Your task to perform on an android device: Search for vegetarian restaurants on Maps Image 0: 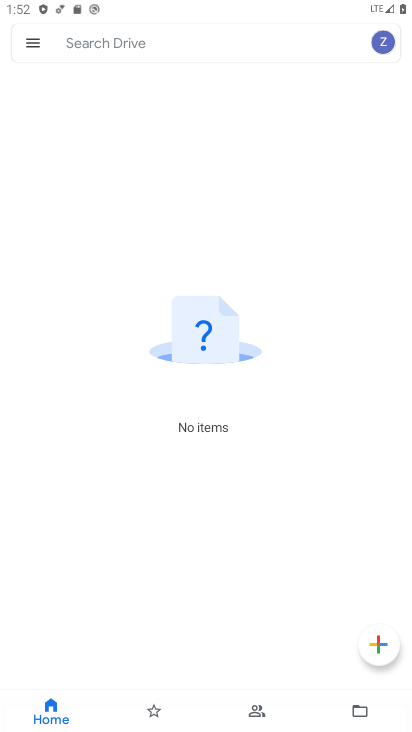
Step 0: press home button
Your task to perform on an android device: Search for vegetarian restaurants on Maps Image 1: 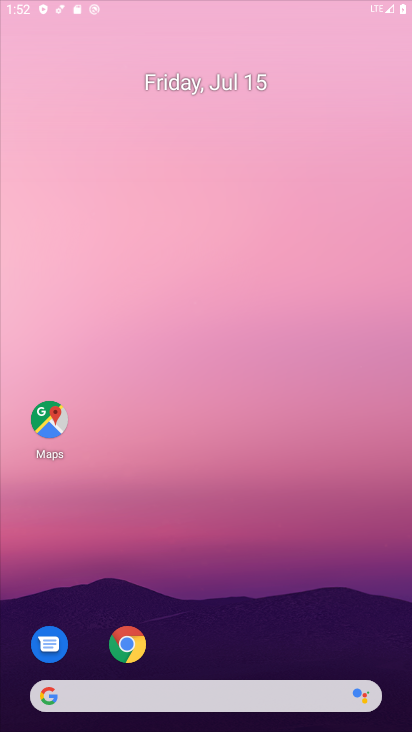
Step 1: drag from (376, 685) to (278, 53)
Your task to perform on an android device: Search for vegetarian restaurants on Maps Image 2: 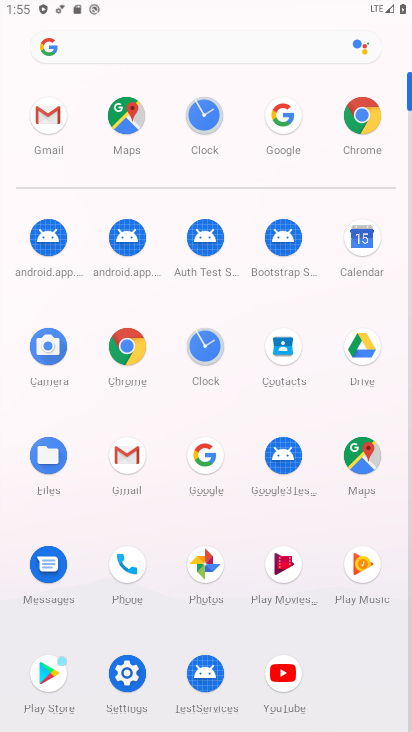
Step 2: click (357, 458)
Your task to perform on an android device: Search for vegetarian restaurants on Maps Image 3: 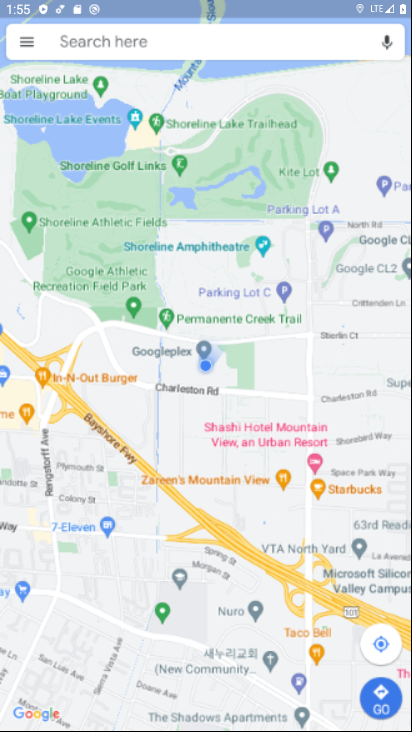
Step 3: click (151, 41)
Your task to perform on an android device: Search for vegetarian restaurants on Maps Image 4: 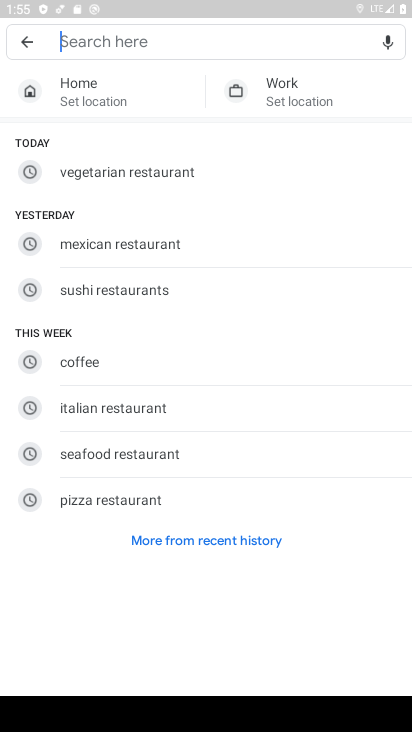
Step 4: click (114, 162)
Your task to perform on an android device: Search for vegetarian restaurants on Maps Image 5: 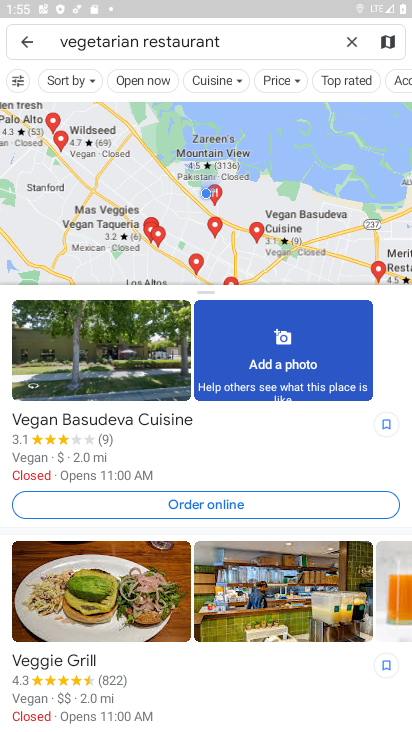
Step 5: task complete